Your task to perform on an android device: turn on the 24-hour format for clock Image 0: 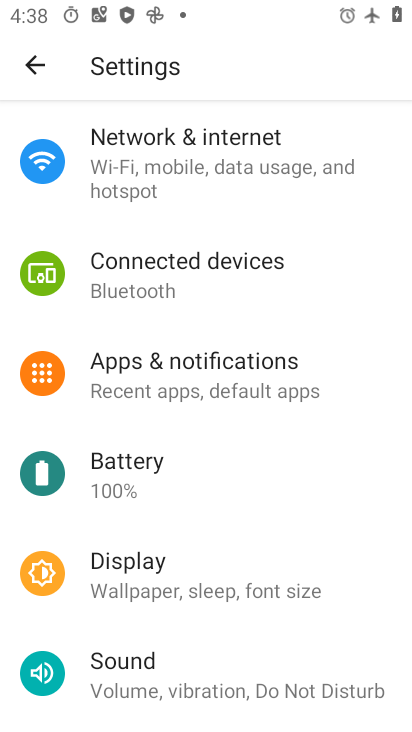
Step 0: press home button
Your task to perform on an android device: turn on the 24-hour format for clock Image 1: 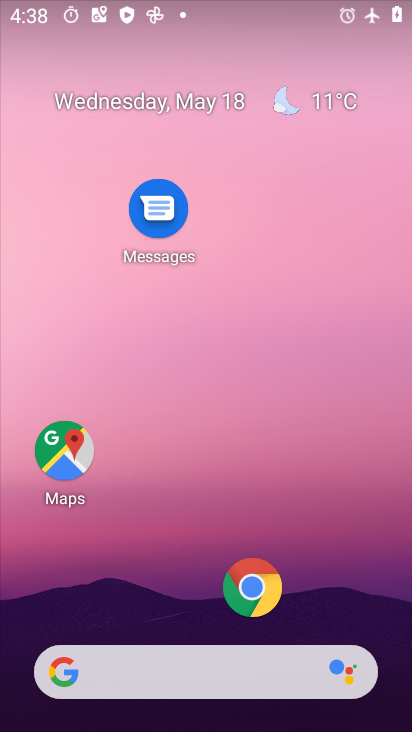
Step 1: drag from (311, 631) to (291, 198)
Your task to perform on an android device: turn on the 24-hour format for clock Image 2: 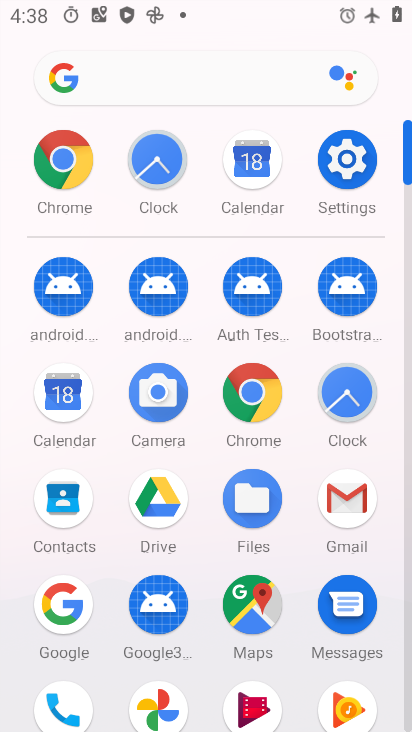
Step 2: click (349, 397)
Your task to perform on an android device: turn on the 24-hour format for clock Image 3: 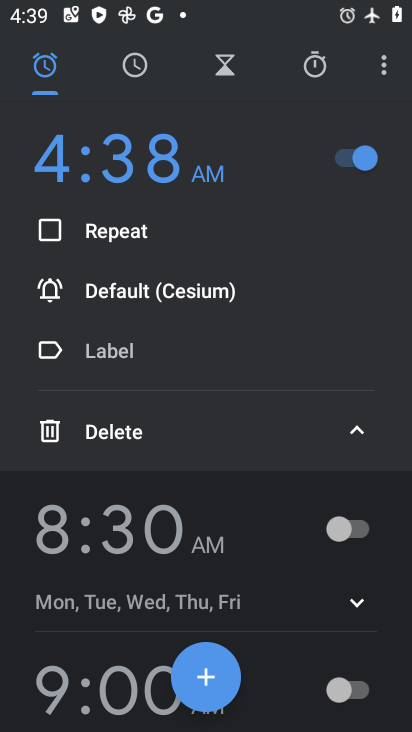
Step 3: click (388, 71)
Your task to perform on an android device: turn on the 24-hour format for clock Image 4: 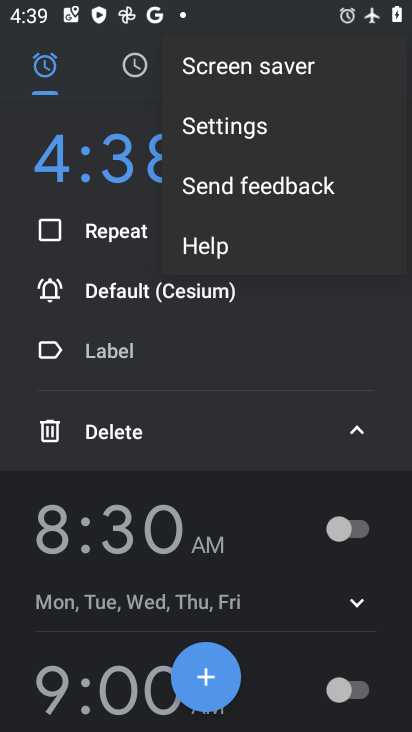
Step 4: click (277, 143)
Your task to perform on an android device: turn on the 24-hour format for clock Image 5: 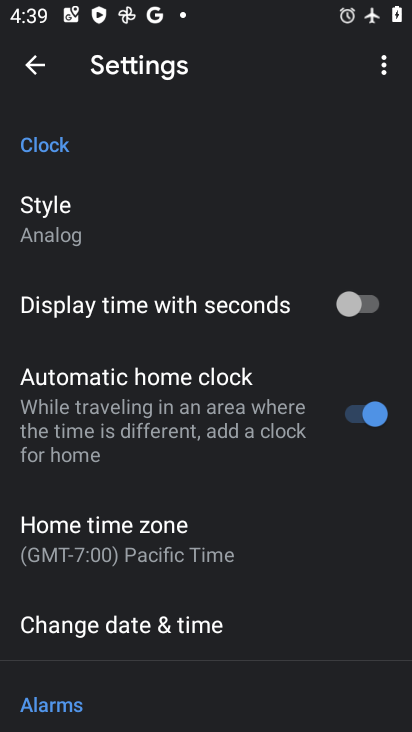
Step 5: drag from (197, 647) to (201, 38)
Your task to perform on an android device: turn on the 24-hour format for clock Image 6: 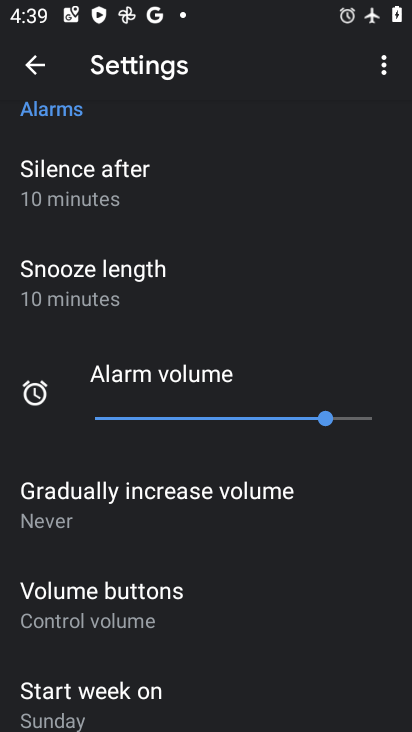
Step 6: drag from (200, 210) to (169, 485)
Your task to perform on an android device: turn on the 24-hour format for clock Image 7: 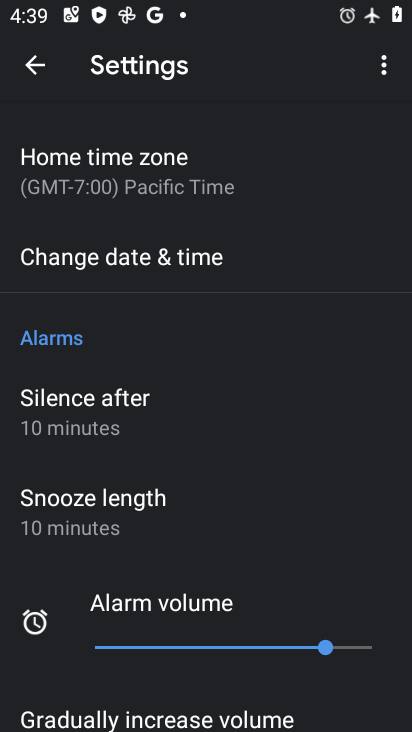
Step 7: click (135, 251)
Your task to perform on an android device: turn on the 24-hour format for clock Image 8: 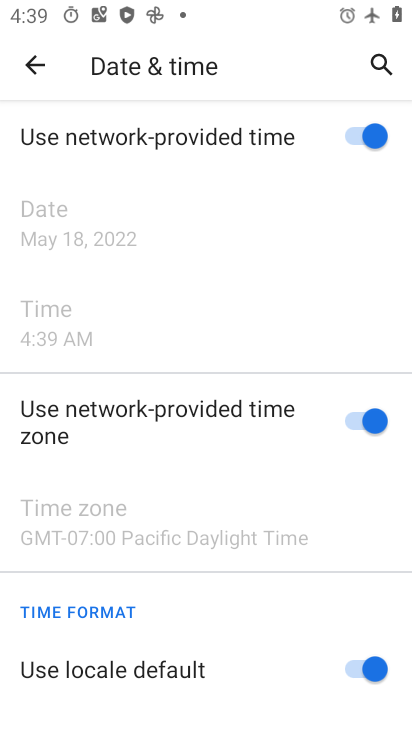
Step 8: drag from (133, 506) to (165, 51)
Your task to perform on an android device: turn on the 24-hour format for clock Image 9: 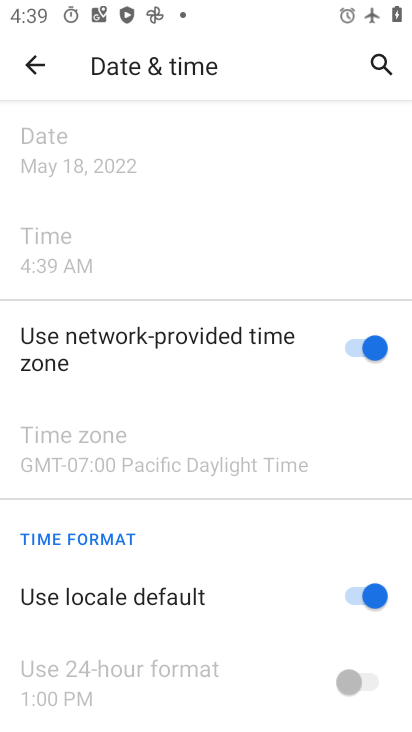
Step 9: click (238, 711)
Your task to perform on an android device: turn on the 24-hour format for clock Image 10: 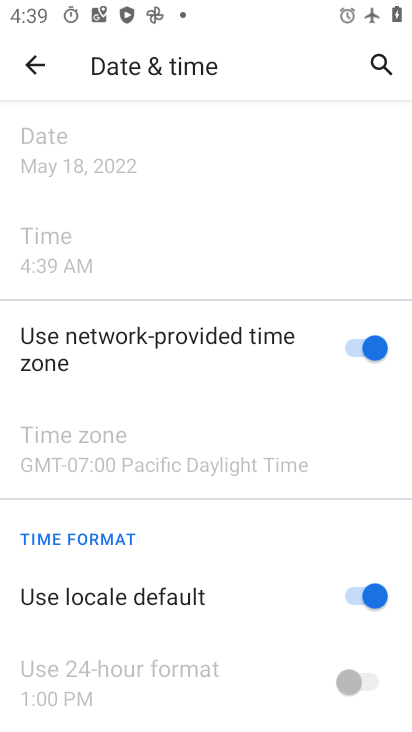
Step 10: click (238, 711)
Your task to perform on an android device: turn on the 24-hour format for clock Image 11: 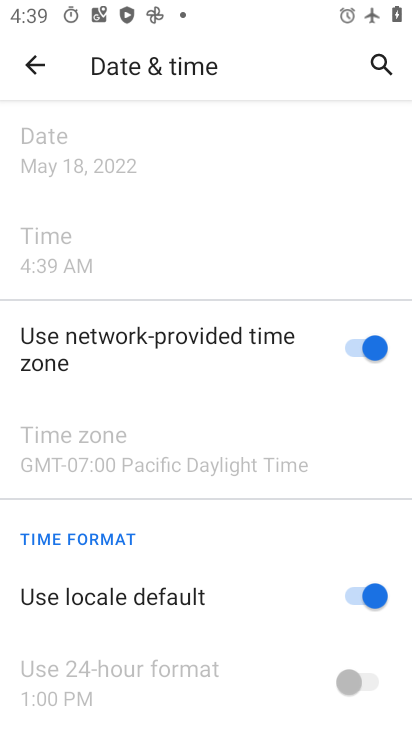
Step 11: task complete